Your task to perform on an android device: search for starred emails in the gmail app Image 0: 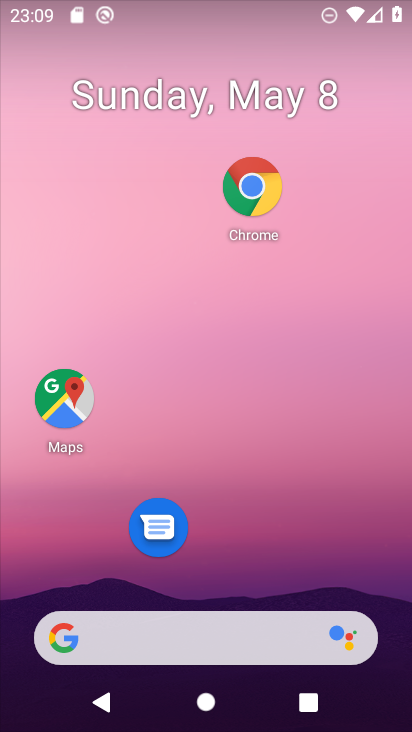
Step 0: drag from (302, 580) to (395, 193)
Your task to perform on an android device: search for starred emails in the gmail app Image 1: 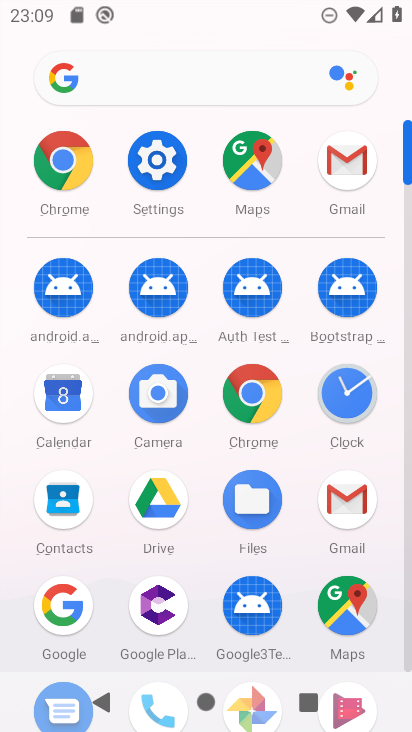
Step 1: click (336, 159)
Your task to perform on an android device: search for starred emails in the gmail app Image 2: 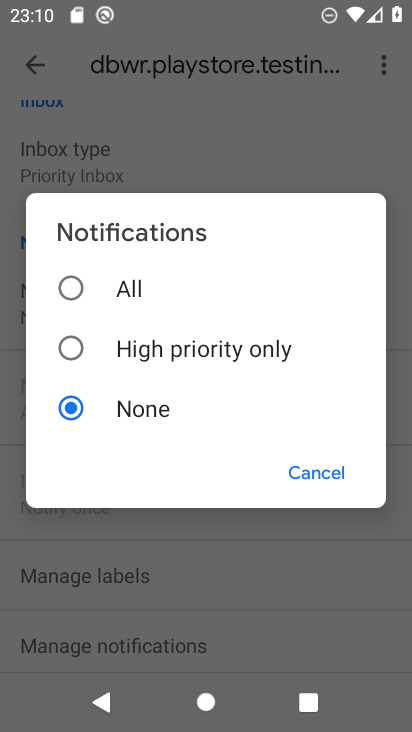
Step 2: click (321, 481)
Your task to perform on an android device: search for starred emails in the gmail app Image 3: 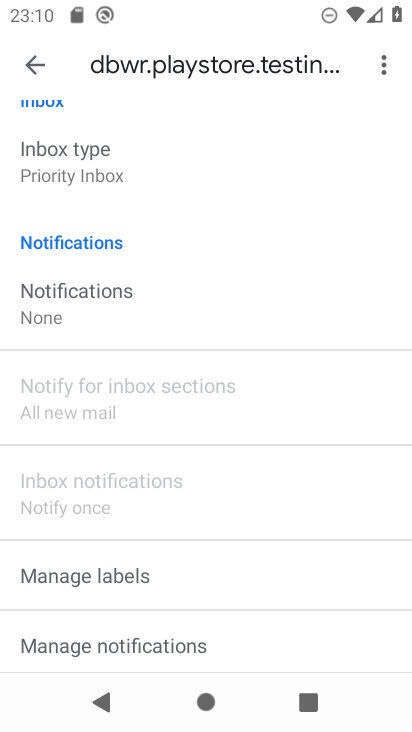
Step 3: click (30, 70)
Your task to perform on an android device: search for starred emails in the gmail app Image 4: 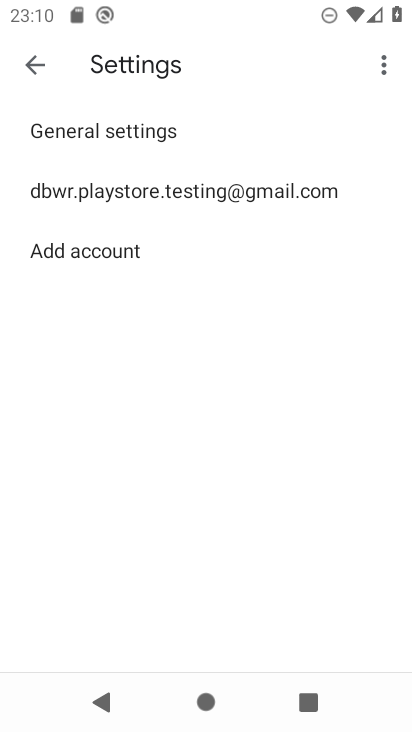
Step 4: click (30, 70)
Your task to perform on an android device: search for starred emails in the gmail app Image 5: 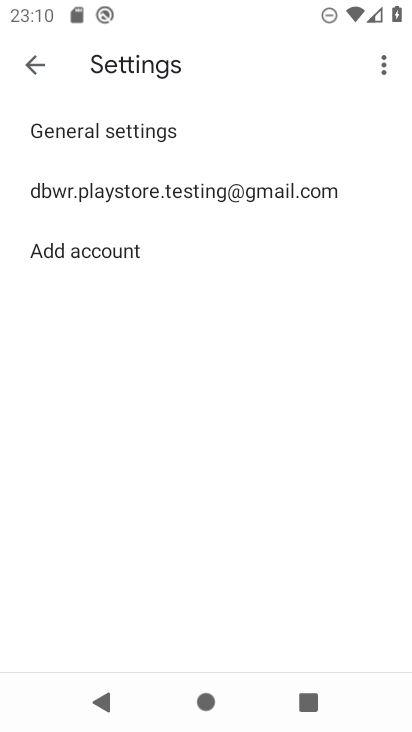
Step 5: click (33, 69)
Your task to perform on an android device: search for starred emails in the gmail app Image 6: 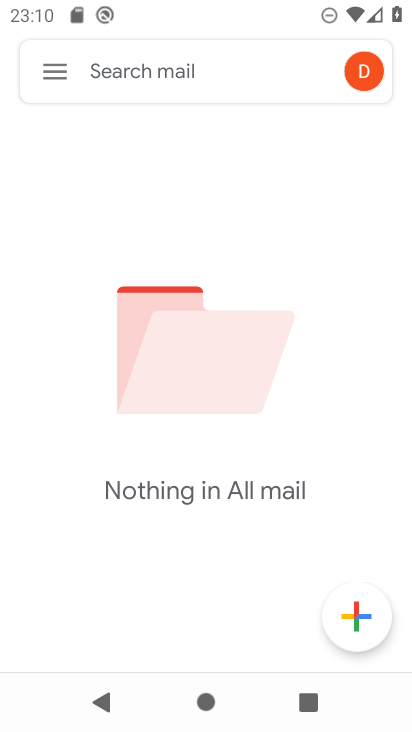
Step 6: click (46, 64)
Your task to perform on an android device: search for starred emails in the gmail app Image 7: 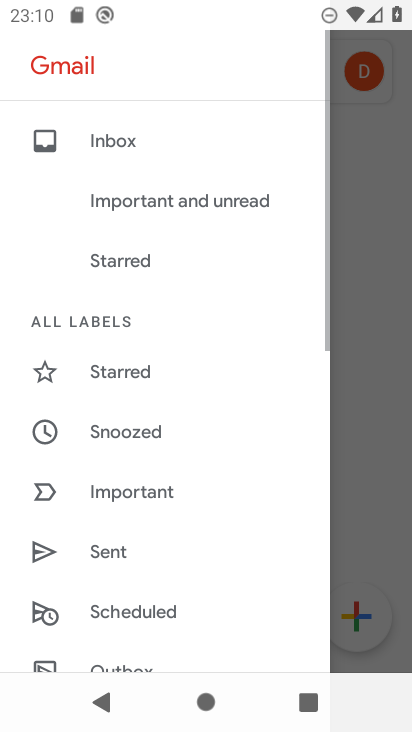
Step 7: click (149, 370)
Your task to perform on an android device: search for starred emails in the gmail app Image 8: 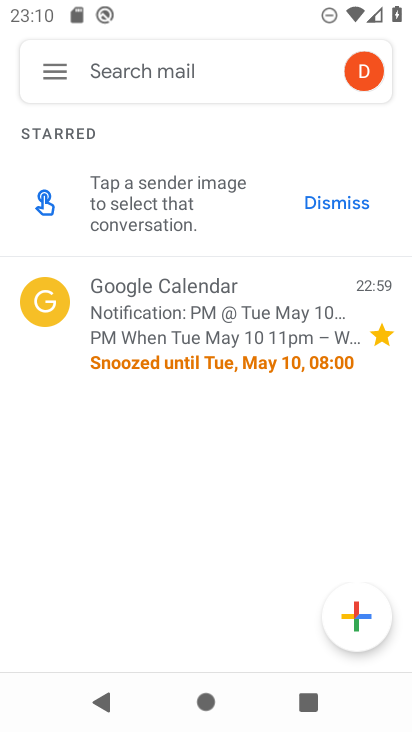
Step 8: task complete